Your task to perform on an android device: delete location history Image 0: 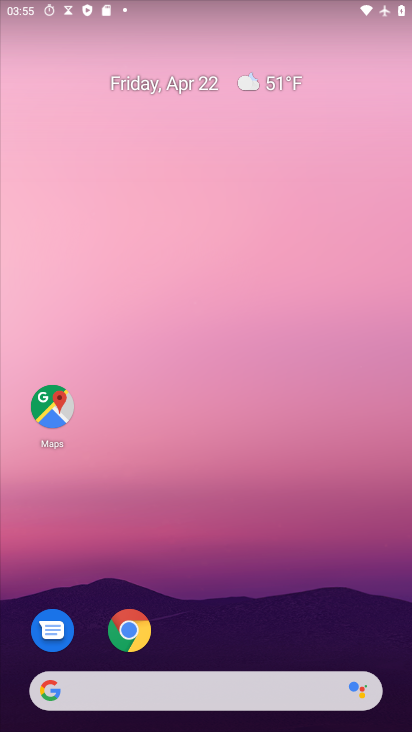
Step 0: drag from (230, 487) to (178, 57)
Your task to perform on an android device: delete location history Image 1: 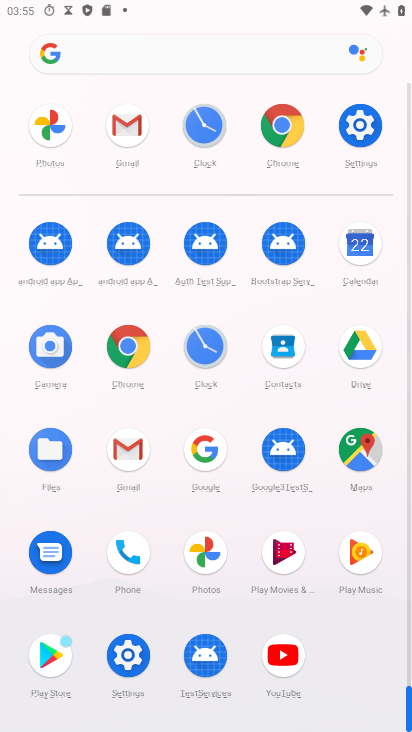
Step 1: drag from (12, 534) to (14, 318)
Your task to perform on an android device: delete location history Image 2: 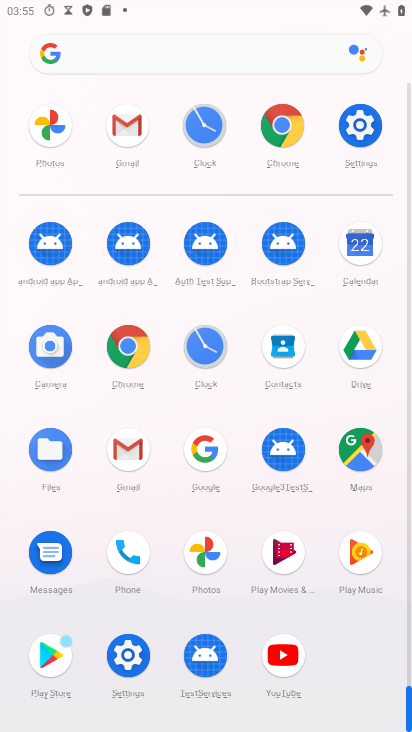
Step 2: click (128, 653)
Your task to perform on an android device: delete location history Image 3: 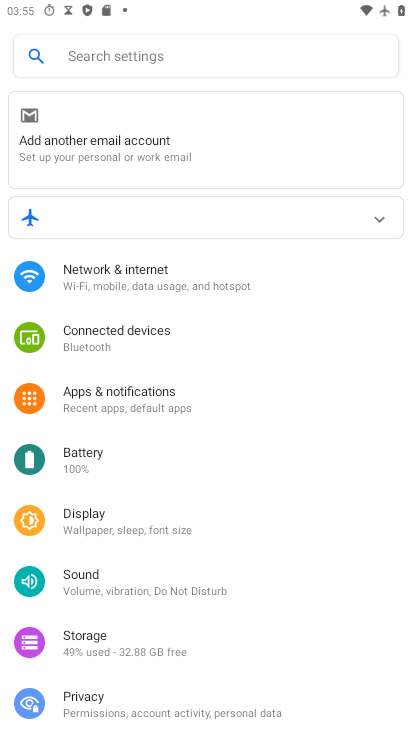
Step 3: drag from (219, 519) to (226, 250)
Your task to perform on an android device: delete location history Image 4: 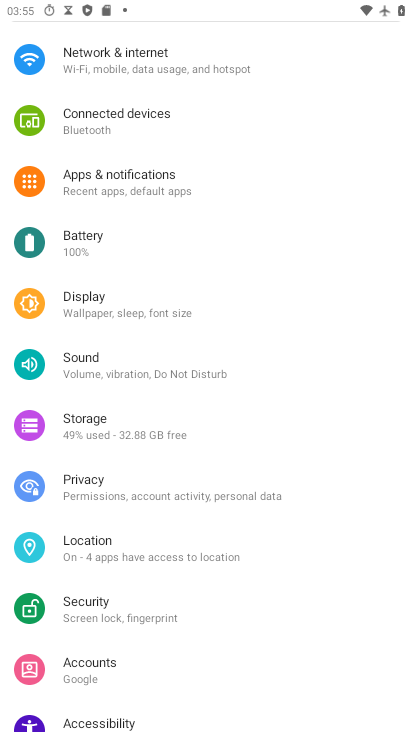
Step 4: click (125, 550)
Your task to perform on an android device: delete location history Image 5: 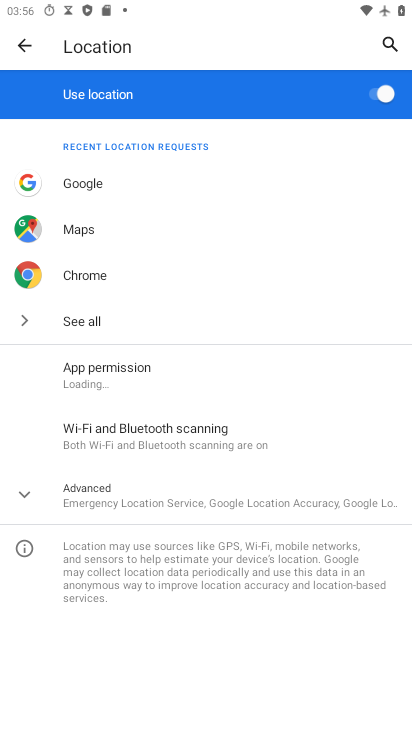
Step 5: click (117, 498)
Your task to perform on an android device: delete location history Image 6: 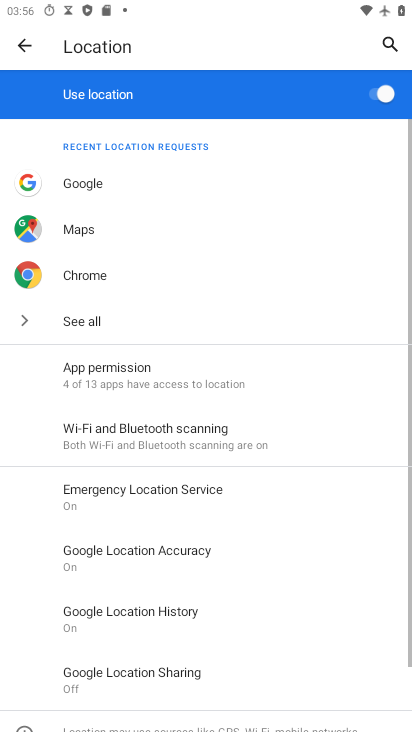
Step 6: drag from (242, 616) to (251, 289)
Your task to perform on an android device: delete location history Image 7: 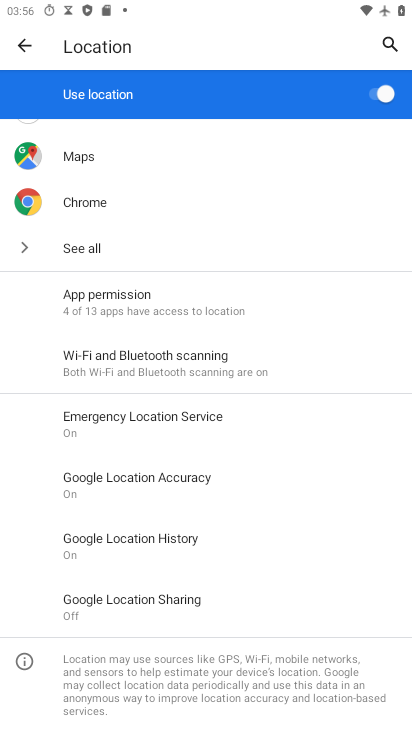
Step 7: click (153, 533)
Your task to perform on an android device: delete location history Image 8: 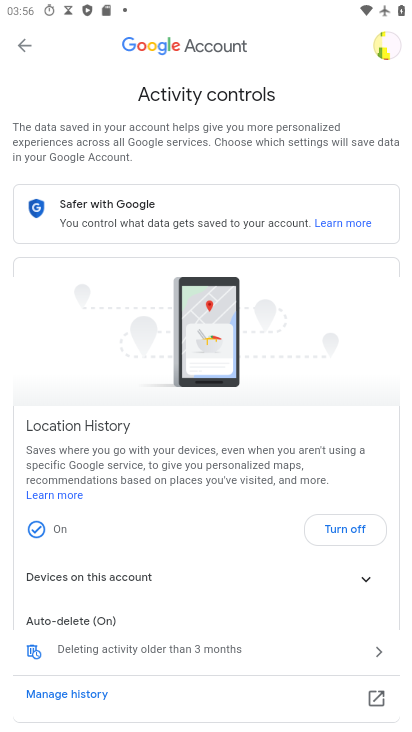
Step 8: drag from (146, 583) to (170, 184)
Your task to perform on an android device: delete location history Image 9: 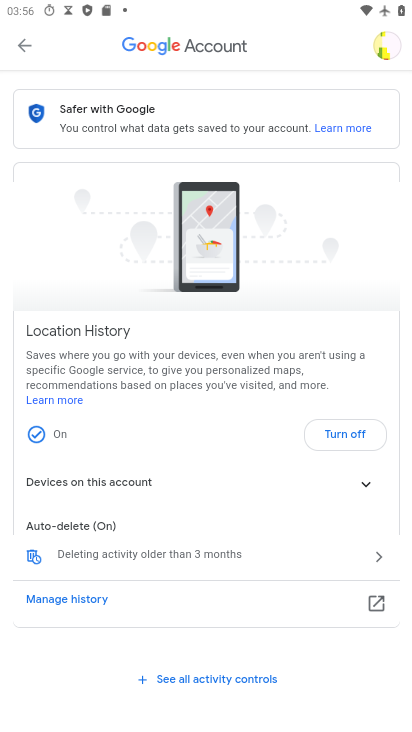
Step 9: click (31, 558)
Your task to perform on an android device: delete location history Image 10: 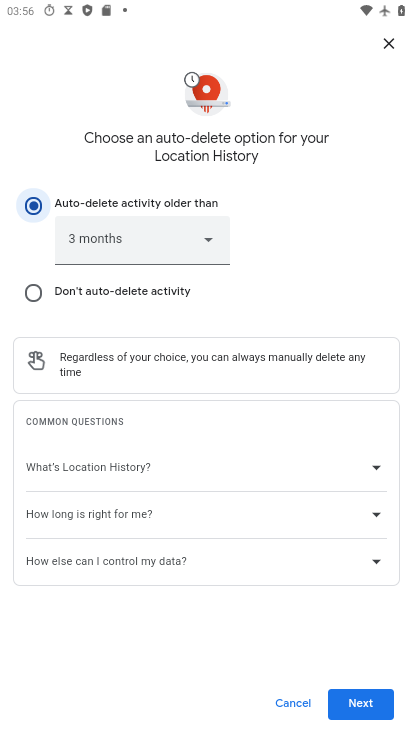
Step 10: click (340, 705)
Your task to perform on an android device: delete location history Image 11: 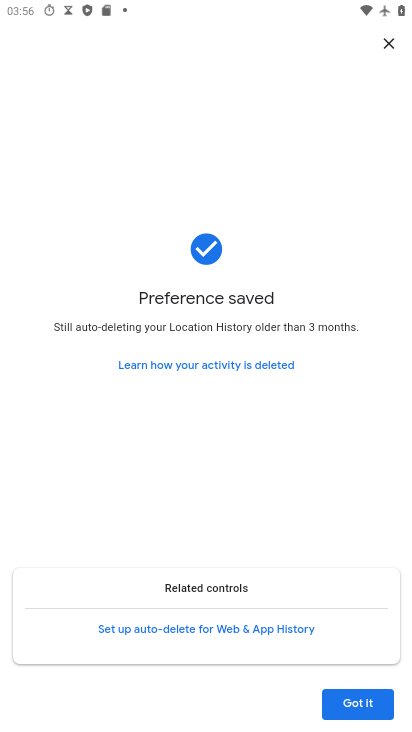
Step 11: task complete